Your task to perform on an android device: set the timer Image 0: 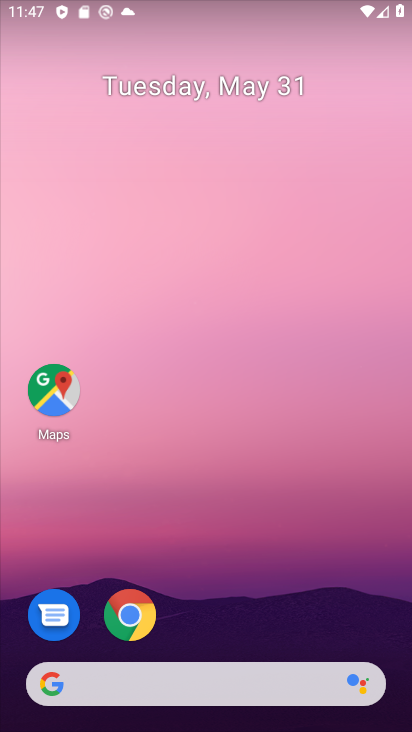
Step 0: drag from (328, 700) to (219, 85)
Your task to perform on an android device: set the timer Image 1: 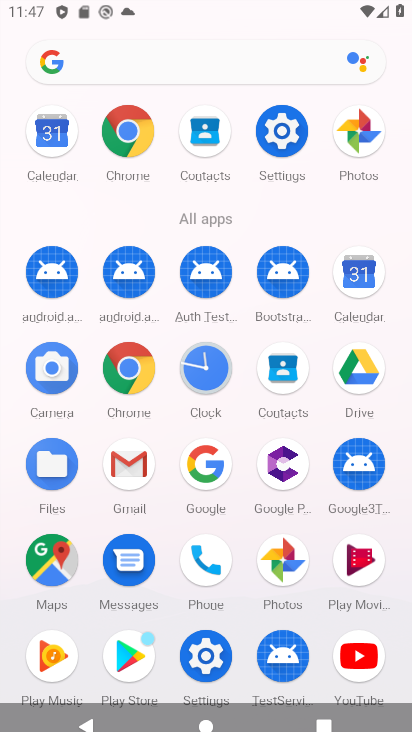
Step 1: click (231, 372)
Your task to perform on an android device: set the timer Image 2: 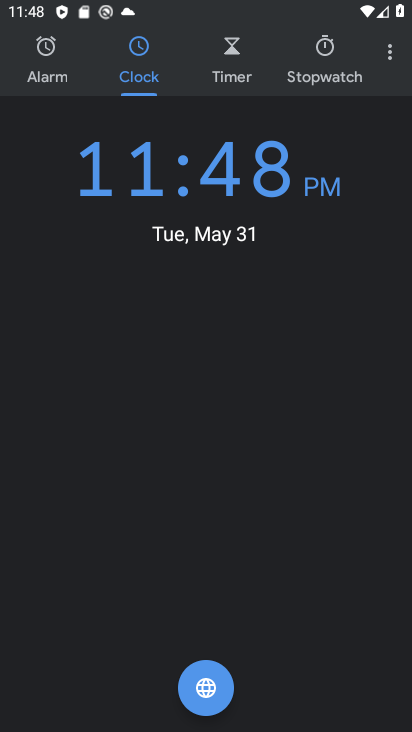
Step 2: click (230, 43)
Your task to perform on an android device: set the timer Image 3: 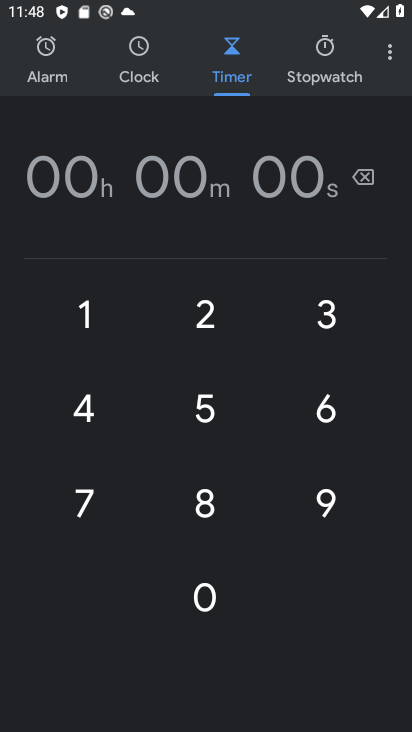
Step 3: click (208, 504)
Your task to perform on an android device: set the timer Image 4: 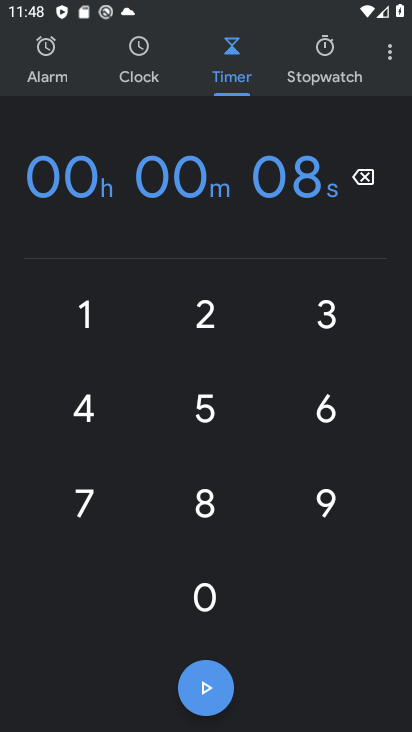
Step 4: click (335, 413)
Your task to perform on an android device: set the timer Image 5: 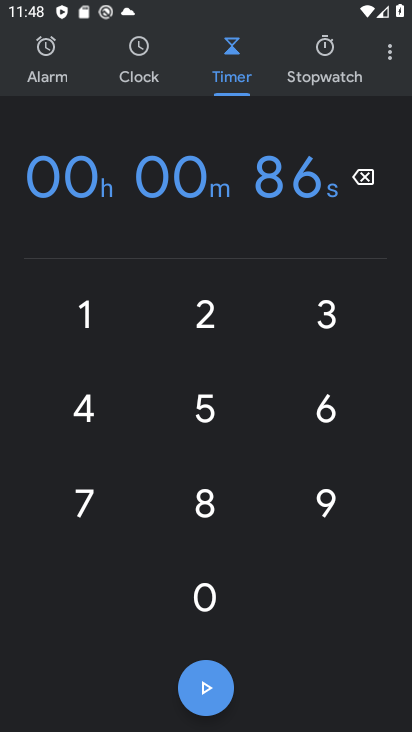
Step 5: click (233, 403)
Your task to perform on an android device: set the timer Image 6: 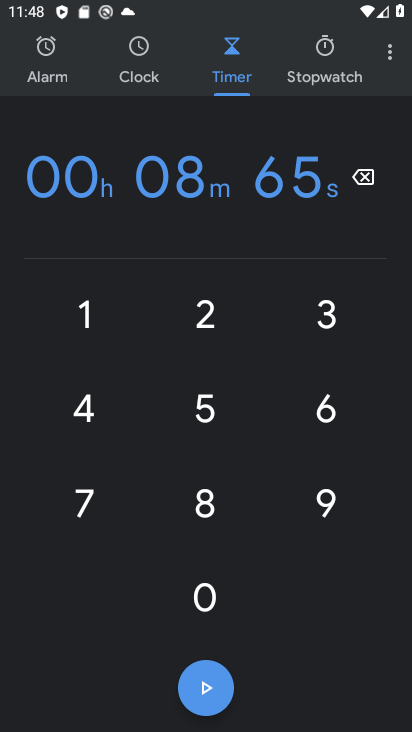
Step 6: click (338, 314)
Your task to perform on an android device: set the timer Image 7: 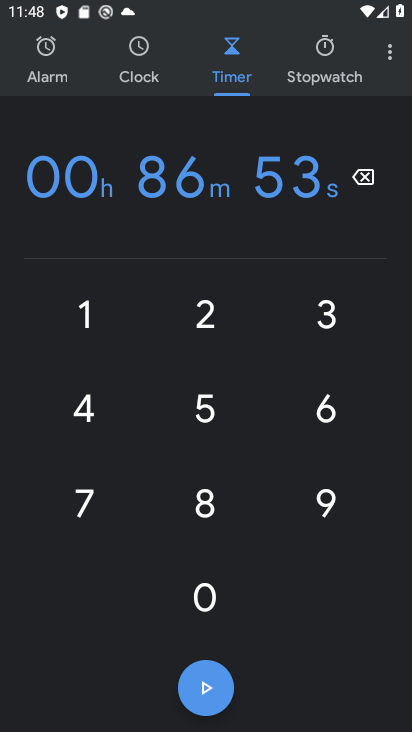
Step 7: click (208, 313)
Your task to perform on an android device: set the timer Image 8: 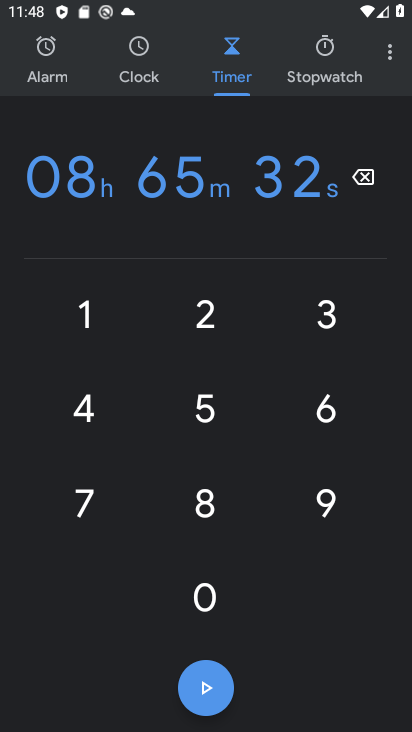
Step 8: click (344, 308)
Your task to perform on an android device: set the timer Image 9: 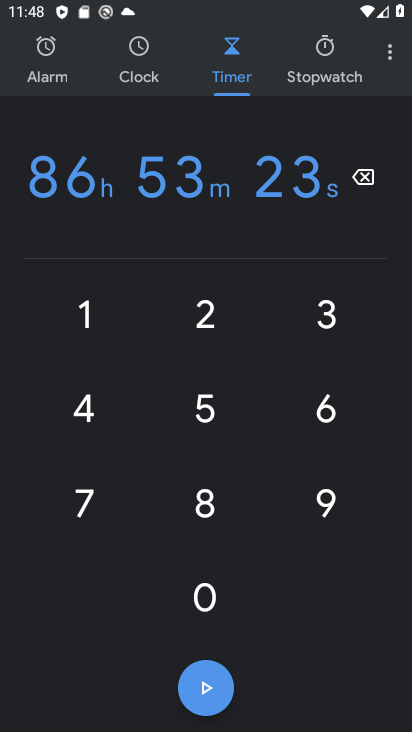
Step 9: click (227, 685)
Your task to perform on an android device: set the timer Image 10: 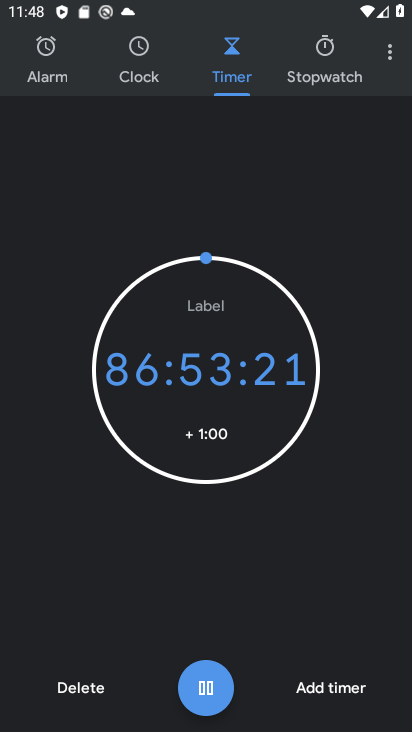
Step 10: task complete